Your task to perform on an android device: Search for seafood restaurants on Google Maps Image 0: 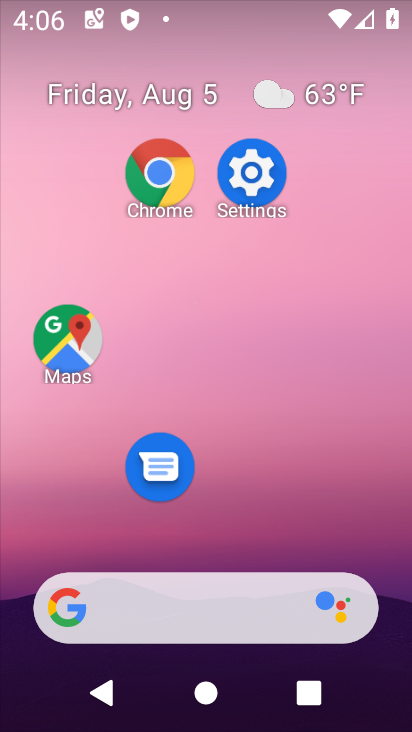
Step 0: drag from (257, 475) to (269, 11)
Your task to perform on an android device: Search for seafood restaurants on Google Maps Image 1: 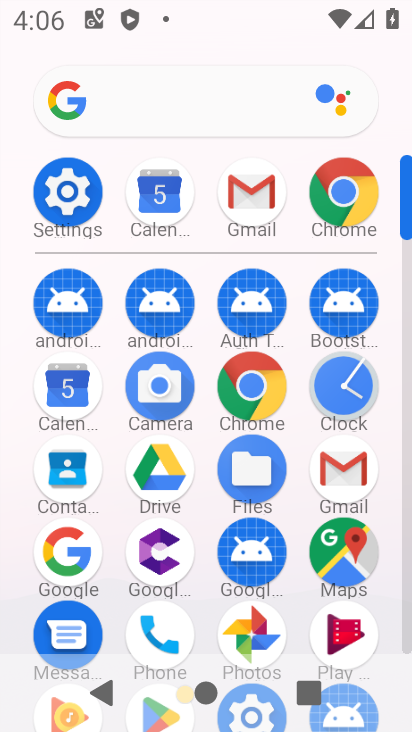
Step 1: click (336, 556)
Your task to perform on an android device: Search for seafood restaurants on Google Maps Image 2: 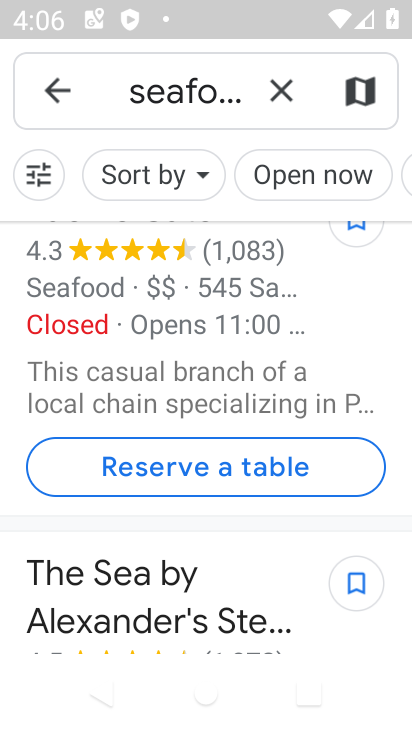
Step 2: click (275, 83)
Your task to perform on an android device: Search for seafood restaurants on Google Maps Image 3: 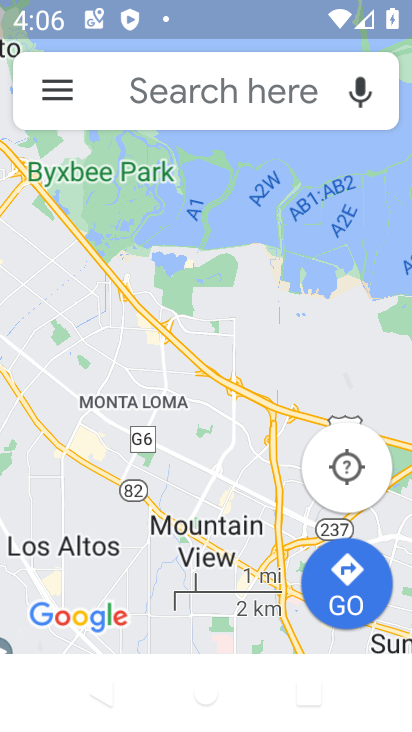
Step 3: click (199, 98)
Your task to perform on an android device: Search for seafood restaurants on Google Maps Image 4: 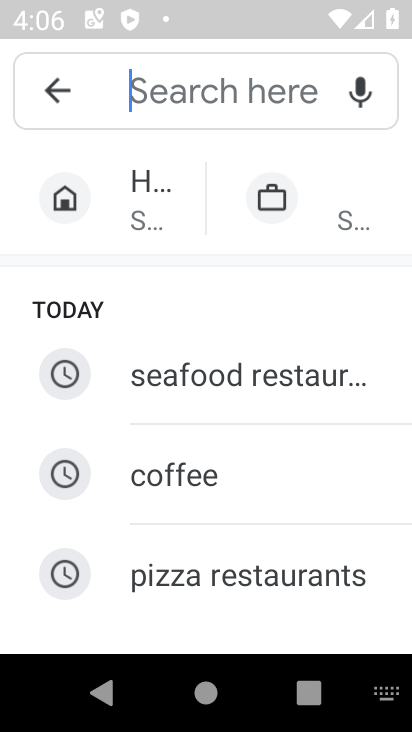
Step 4: type " seafood restaurants "
Your task to perform on an android device: Search for seafood restaurants on Google Maps Image 5: 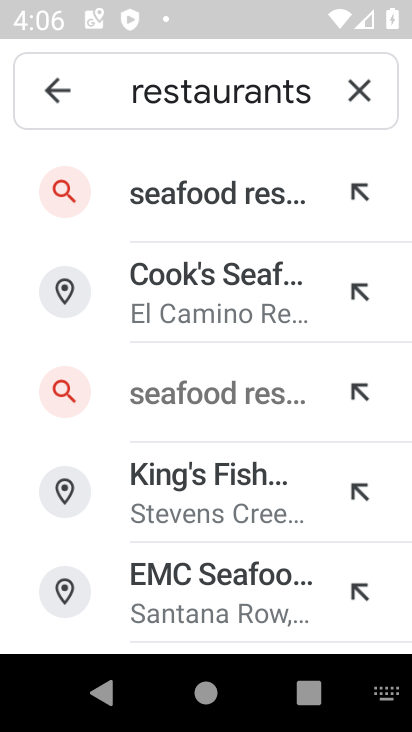
Step 5: click (203, 197)
Your task to perform on an android device: Search for seafood restaurants on Google Maps Image 6: 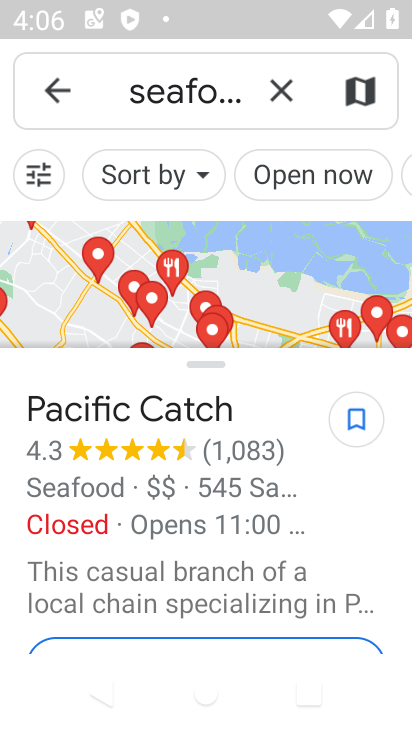
Step 6: task complete